Your task to perform on an android device: Show me recent news Image 0: 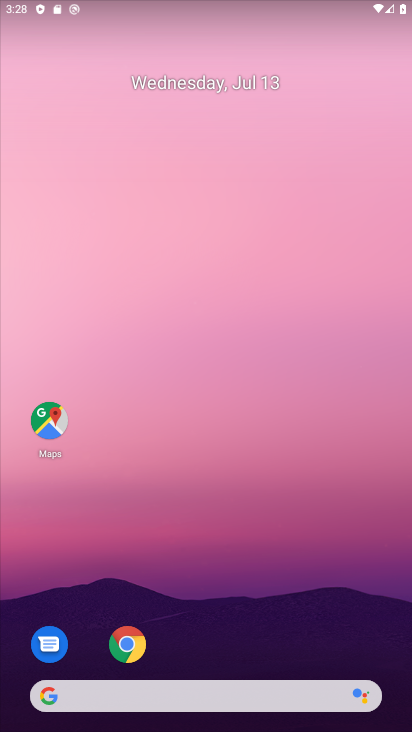
Step 0: drag from (207, 654) to (223, 232)
Your task to perform on an android device: Show me recent news Image 1: 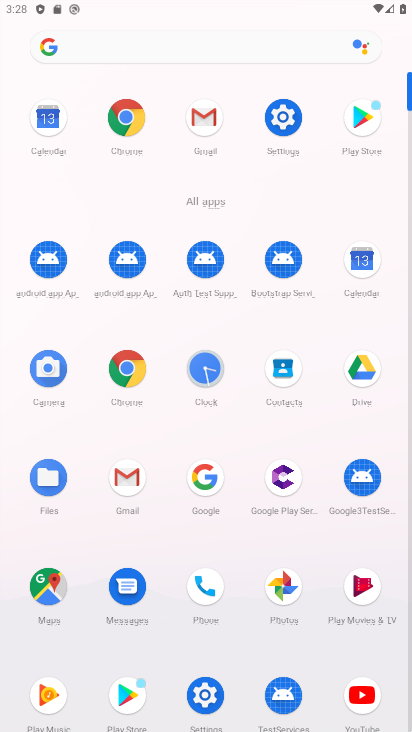
Step 1: click (202, 472)
Your task to perform on an android device: Show me recent news Image 2: 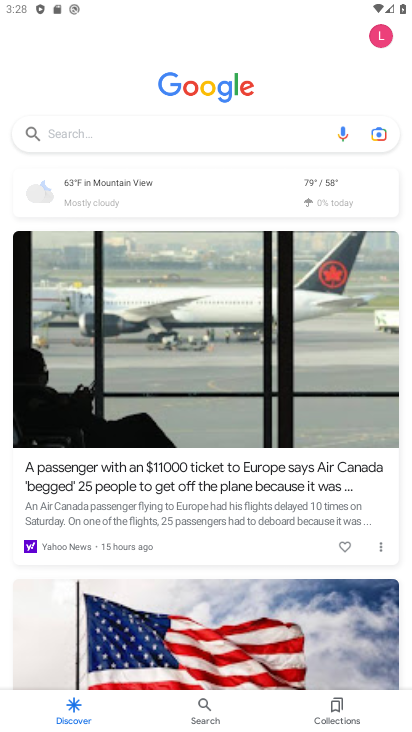
Step 2: click (145, 134)
Your task to perform on an android device: Show me recent news Image 3: 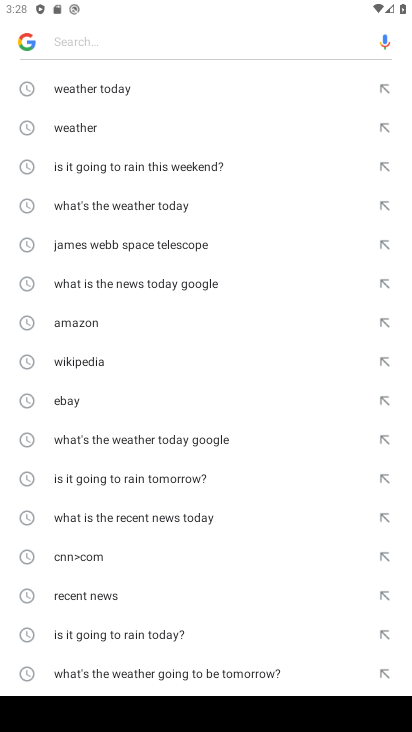
Step 3: type "news"
Your task to perform on an android device: Show me recent news Image 4: 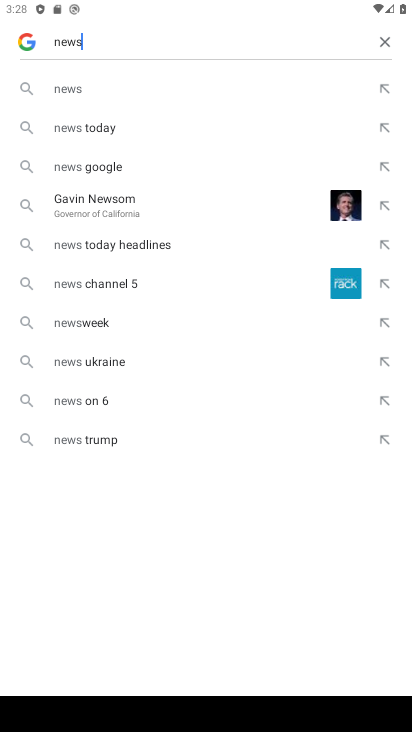
Step 4: click (100, 91)
Your task to perform on an android device: Show me recent news Image 5: 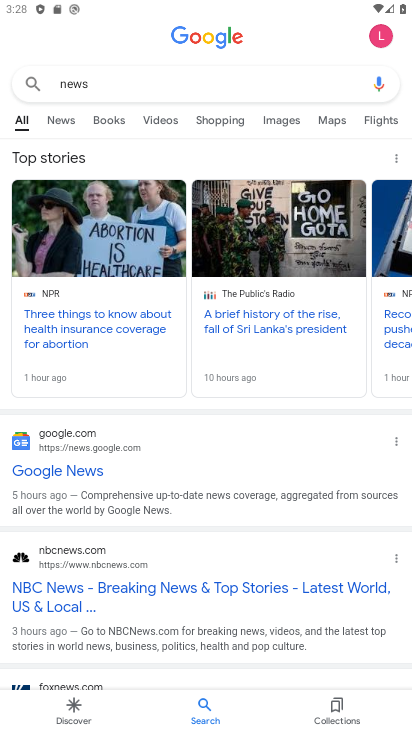
Step 5: click (66, 116)
Your task to perform on an android device: Show me recent news Image 6: 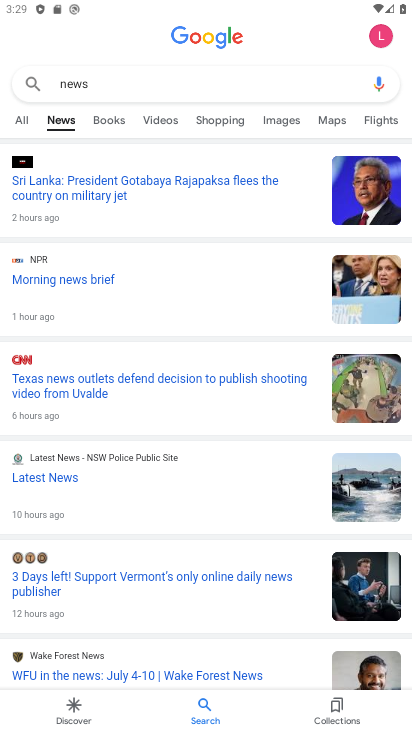
Step 6: task complete